Your task to perform on an android device: remove spam from my inbox in the gmail app Image 0: 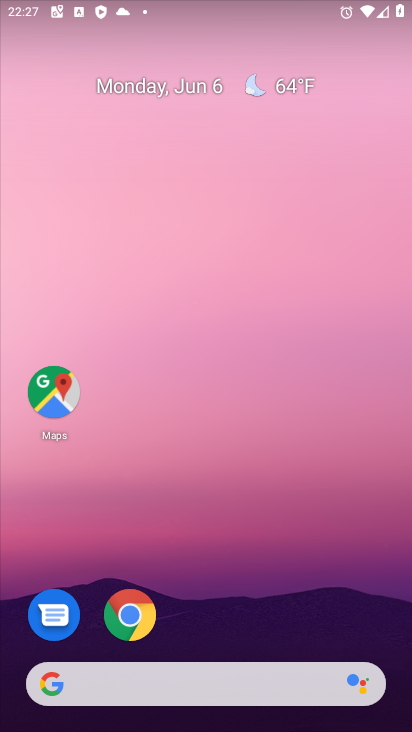
Step 0: drag from (399, 712) to (328, 232)
Your task to perform on an android device: remove spam from my inbox in the gmail app Image 1: 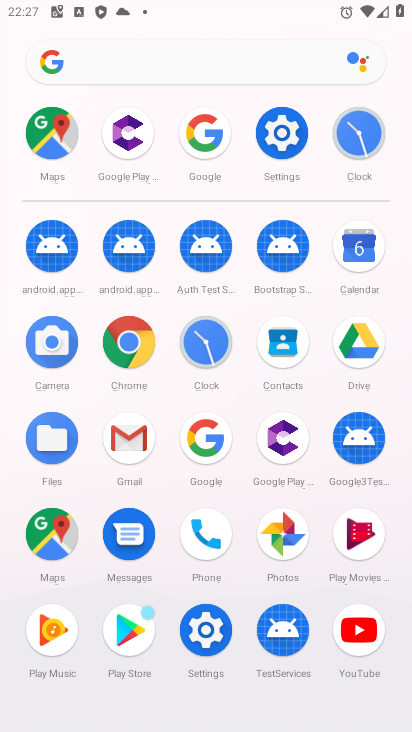
Step 1: click (125, 447)
Your task to perform on an android device: remove spam from my inbox in the gmail app Image 2: 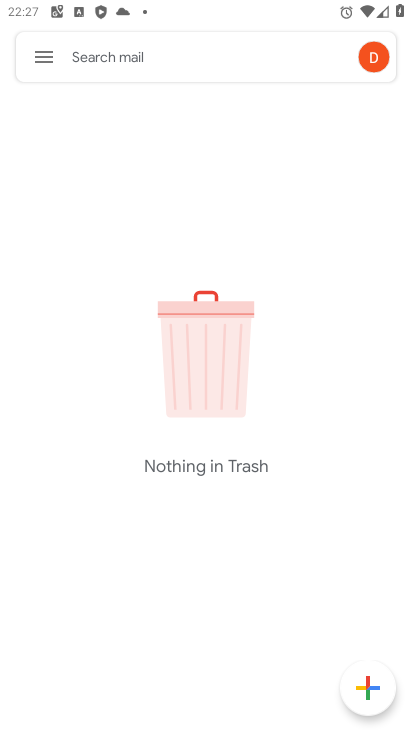
Step 2: press back button
Your task to perform on an android device: remove spam from my inbox in the gmail app Image 3: 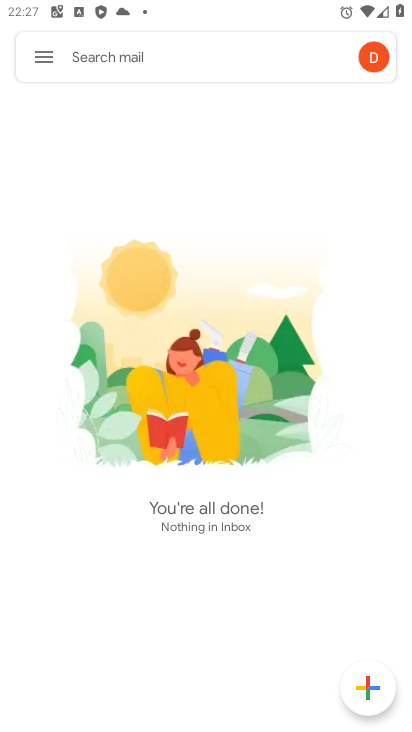
Step 3: click (41, 51)
Your task to perform on an android device: remove spam from my inbox in the gmail app Image 4: 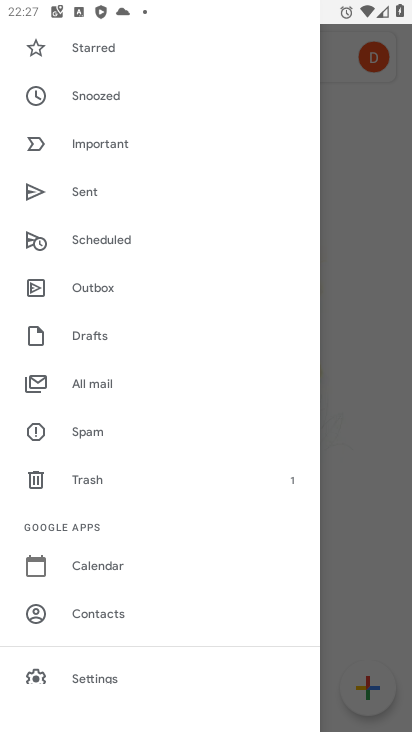
Step 4: click (78, 432)
Your task to perform on an android device: remove spam from my inbox in the gmail app Image 5: 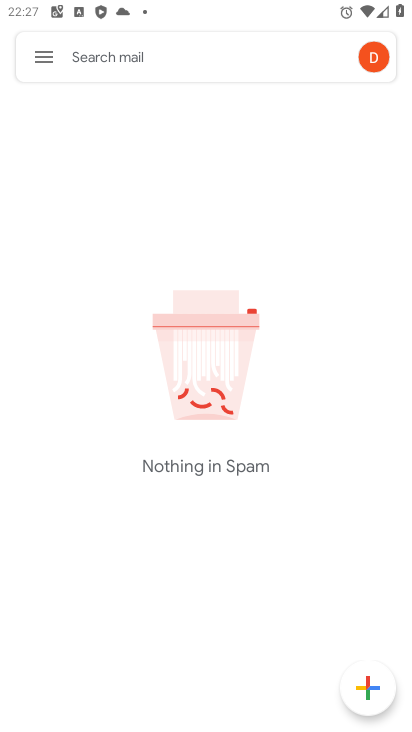
Step 5: task complete